Your task to perform on an android device: turn off data saver in the chrome app Image 0: 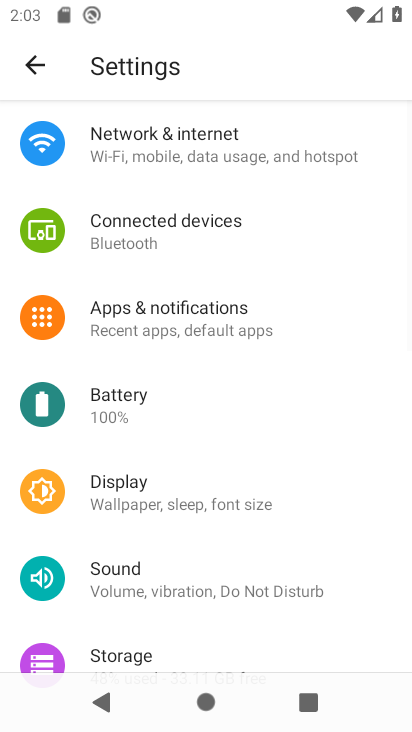
Step 0: press home button
Your task to perform on an android device: turn off data saver in the chrome app Image 1: 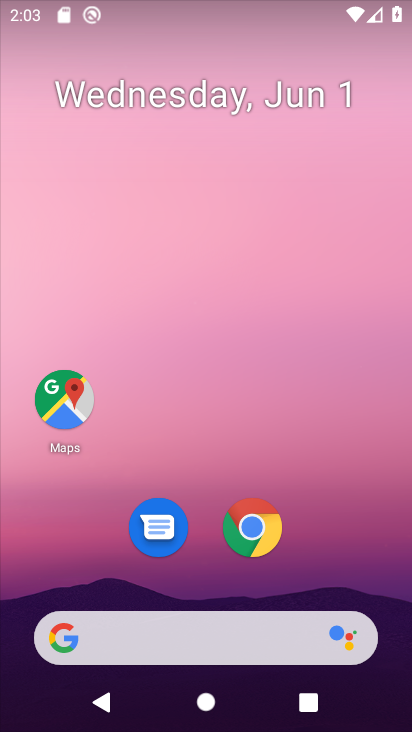
Step 1: click (257, 532)
Your task to perform on an android device: turn off data saver in the chrome app Image 2: 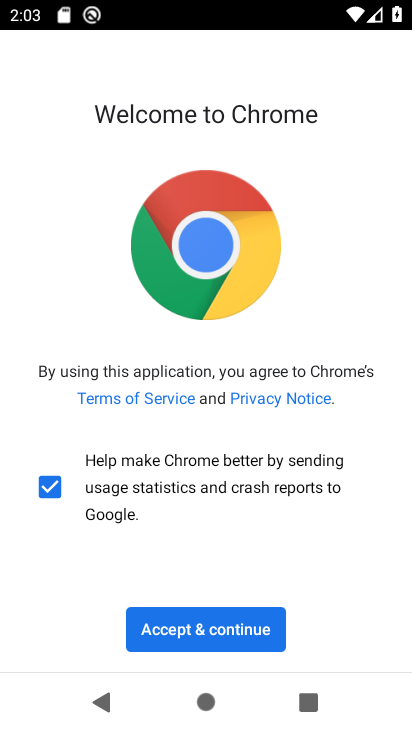
Step 2: click (189, 639)
Your task to perform on an android device: turn off data saver in the chrome app Image 3: 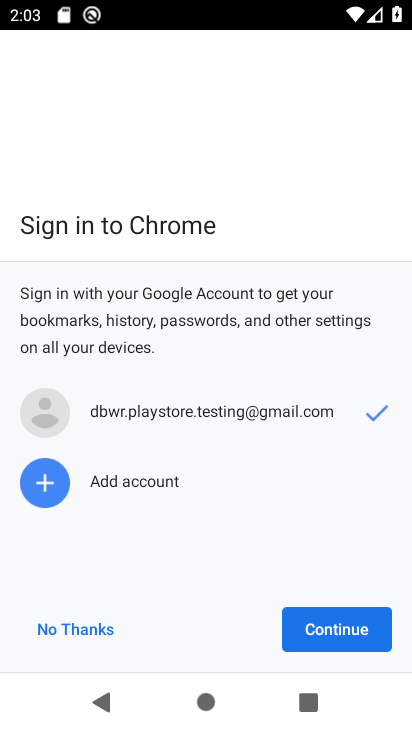
Step 3: click (353, 625)
Your task to perform on an android device: turn off data saver in the chrome app Image 4: 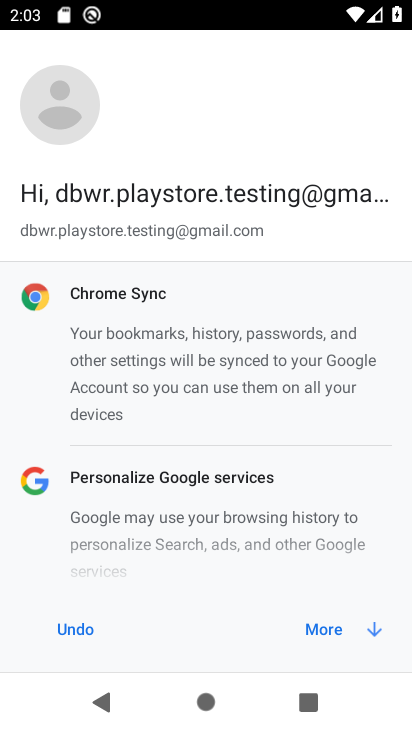
Step 4: click (353, 625)
Your task to perform on an android device: turn off data saver in the chrome app Image 5: 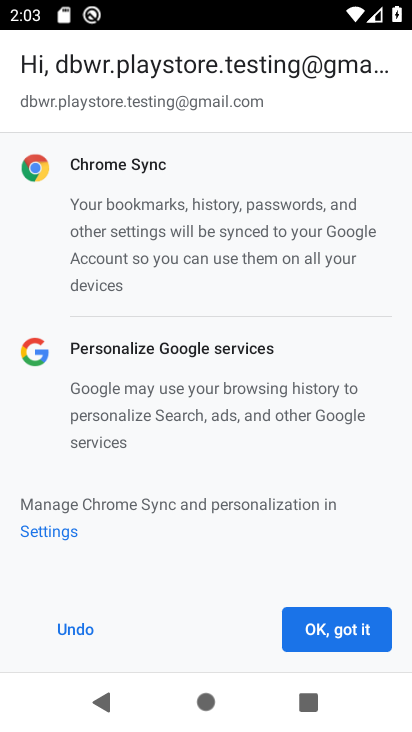
Step 5: click (353, 625)
Your task to perform on an android device: turn off data saver in the chrome app Image 6: 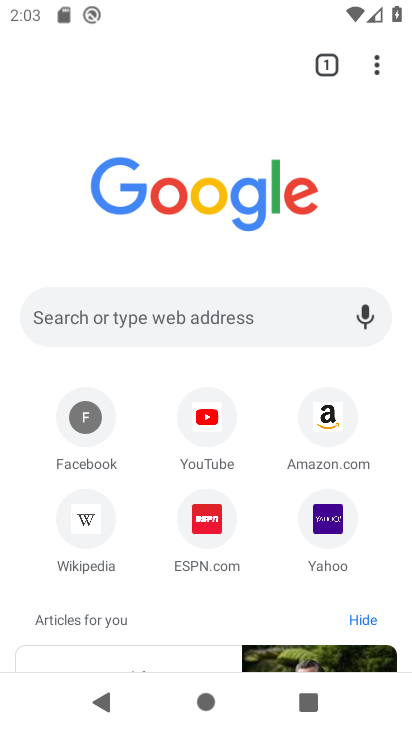
Step 6: click (384, 63)
Your task to perform on an android device: turn off data saver in the chrome app Image 7: 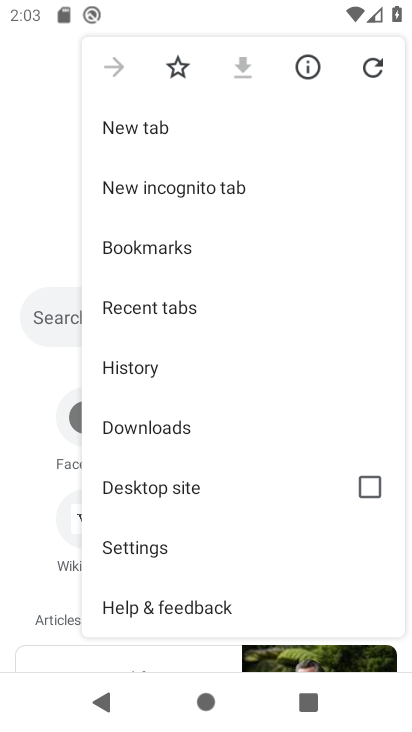
Step 7: click (153, 541)
Your task to perform on an android device: turn off data saver in the chrome app Image 8: 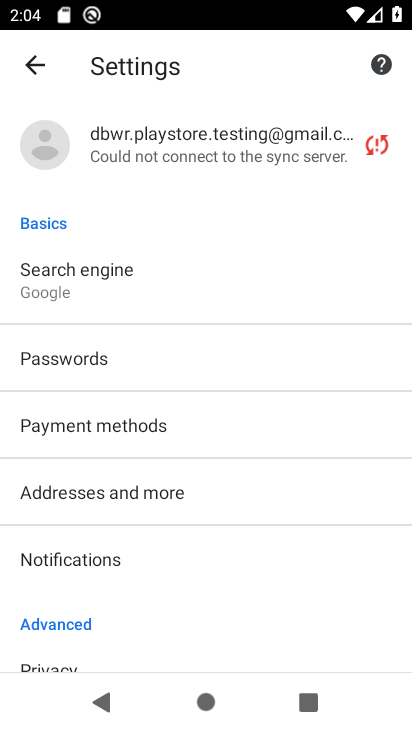
Step 8: drag from (150, 560) to (218, 59)
Your task to perform on an android device: turn off data saver in the chrome app Image 9: 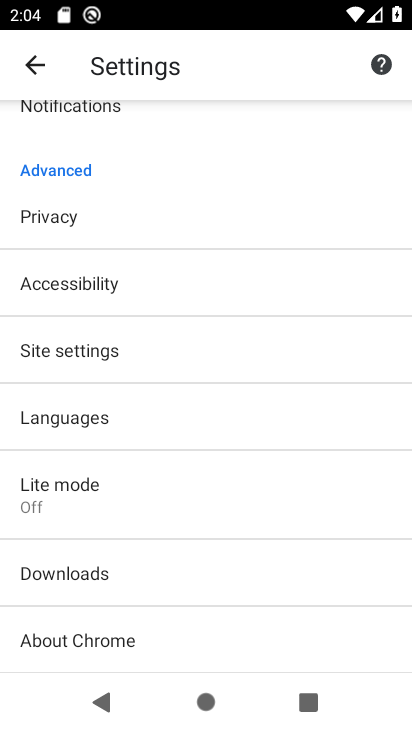
Step 9: click (101, 494)
Your task to perform on an android device: turn off data saver in the chrome app Image 10: 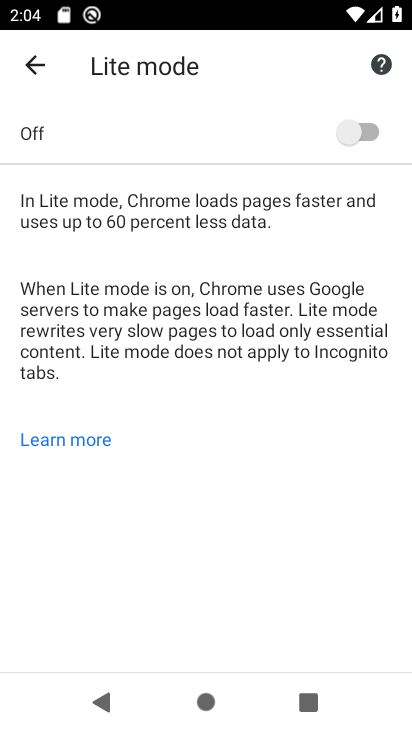
Step 10: task complete